Your task to perform on an android device: Open Wikipedia Image 0: 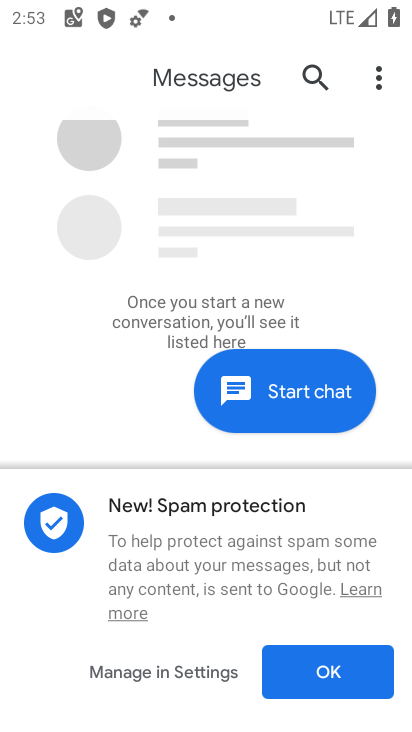
Step 0: press back button
Your task to perform on an android device: Open Wikipedia Image 1: 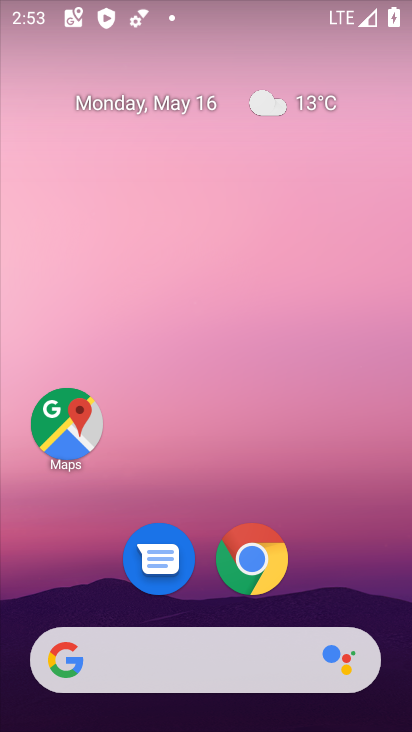
Step 1: click (240, 551)
Your task to perform on an android device: Open Wikipedia Image 2: 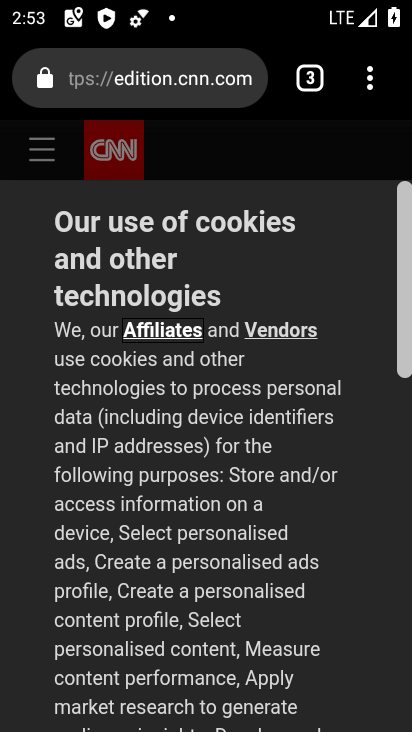
Step 2: click (322, 82)
Your task to perform on an android device: Open Wikipedia Image 3: 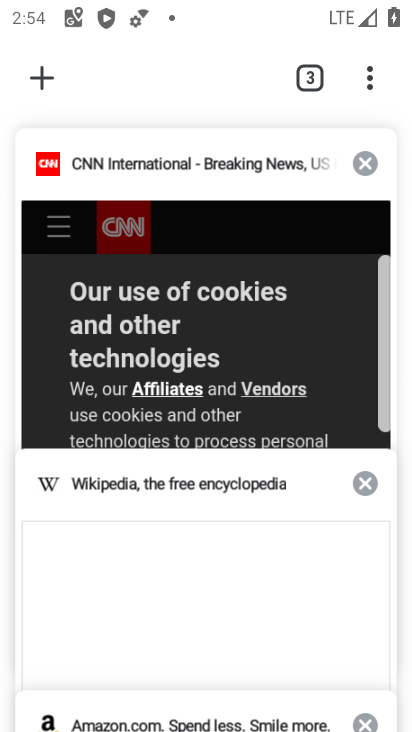
Step 3: click (170, 621)
Your task to perform on an android device: Open Wikipedia Image 4: 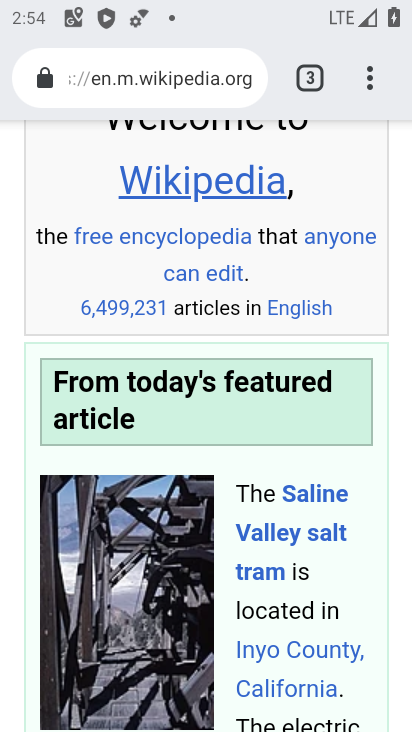
Step 4: task complete